Your task to perform on an android device: delete the emails in spam in the gmail app Image 0: 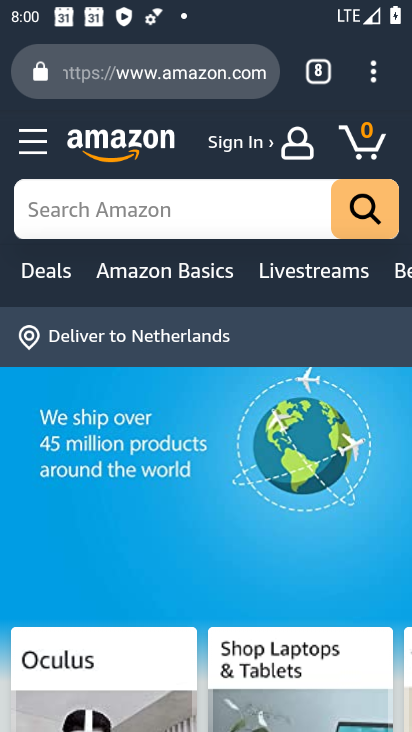
Step 0: press home button
Your task to perform on an android device: delete the emails in spam in the gmail app Image 1: 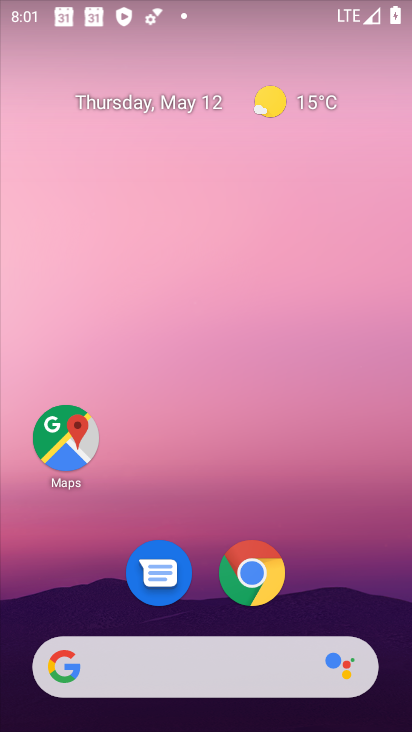
Step 1: drag from (353, 556) to (157, 24)
Your task to perform on an android device: delete the emails in spam in the gmail app Image 2: 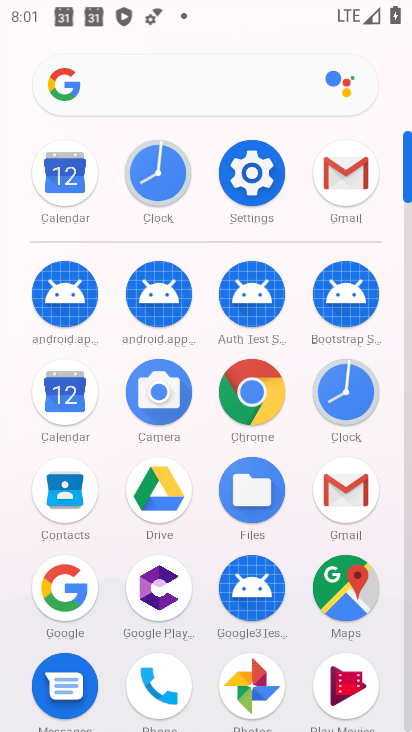
Step 2: click (335, 177)
Your task to perform on an android device: delete the emails in spam in the gmail app Image 3: 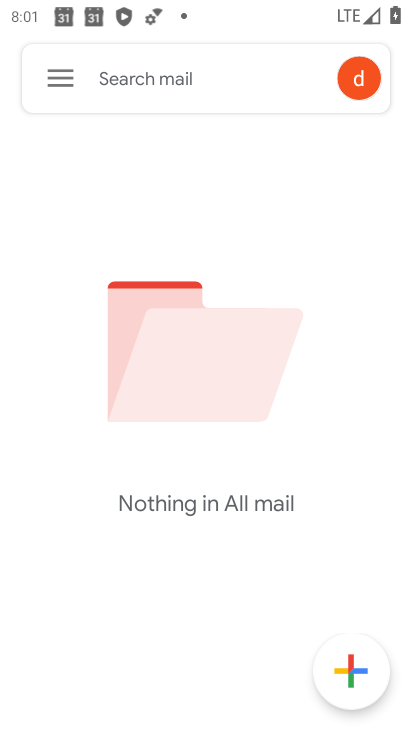
Step 3: click (61, 67)
Your task to perform on an android device: delete the emails in spam in the gmail app Image 4: 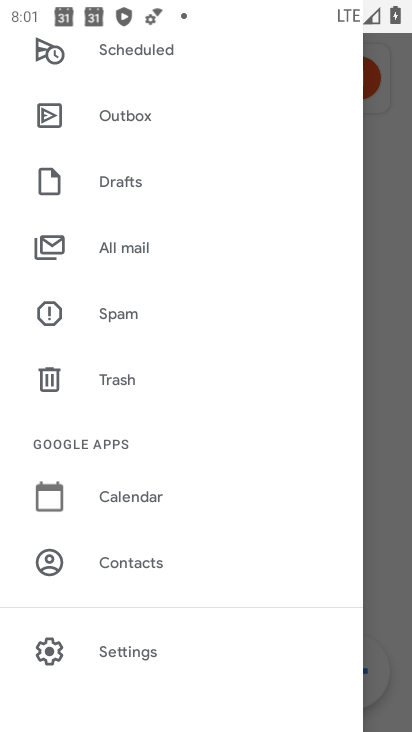
Step 4: click (118, 313)
Your task to perform on an android device: delete the emails in spam in the gmail app Image 5: 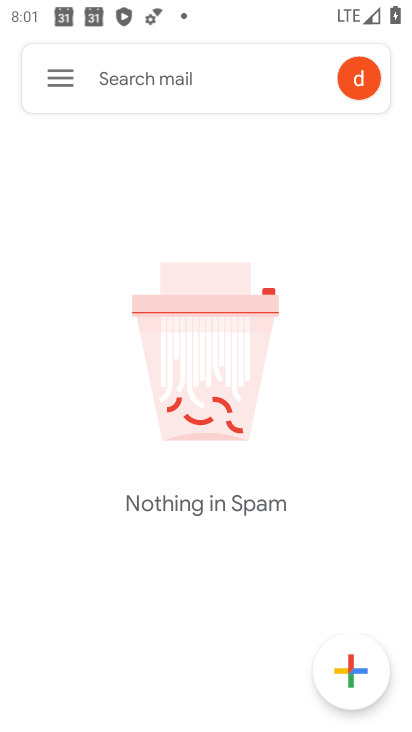
Step 5: task complete